Your task to perform on an android device: remove spam from my inbox in the gmail app Image 0: 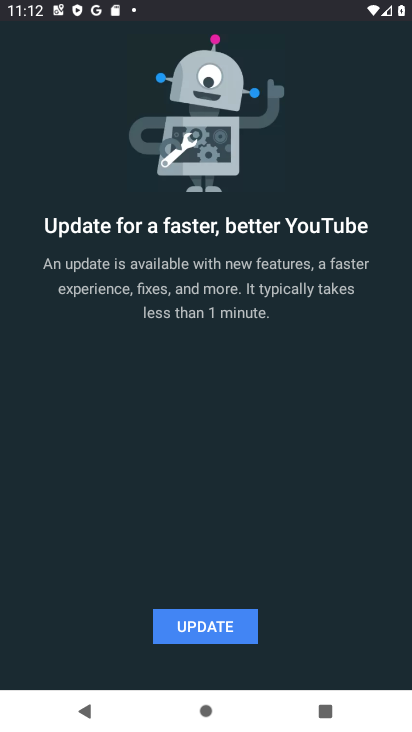
Step 0: press home button
Your task to perform on an android device: remove spam from my inbox in the gmail app Image 1: 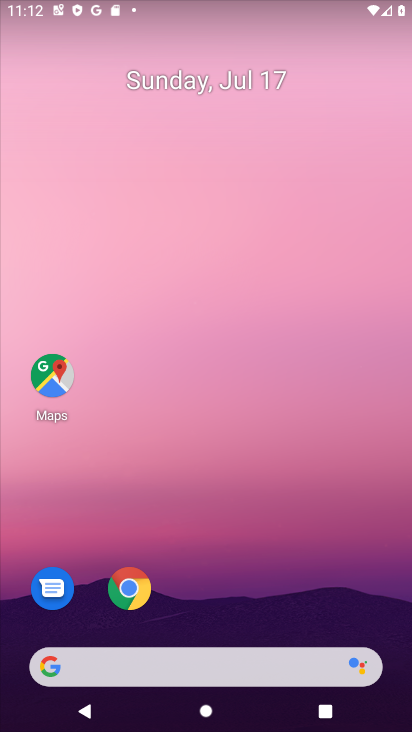
Step 1: drag from (231, 614) to (313, 67)
Your task to perform on an android device: remove spam from my inbox in the gmail app Image 2: 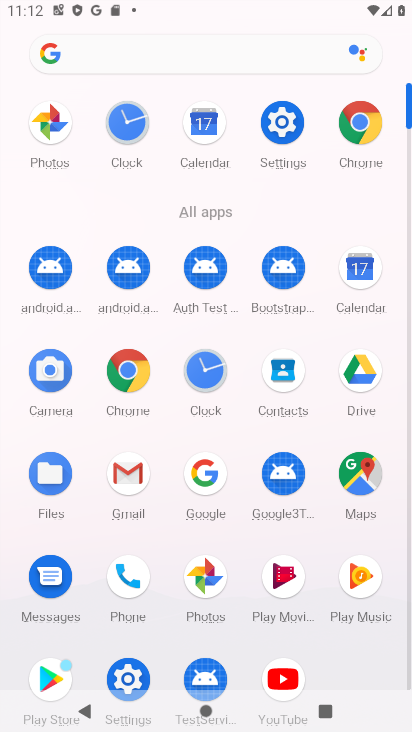
Step 2: click (129, 477)
Your task to perform on an android device: remove spam from my inbox in the gmail app Image 3: 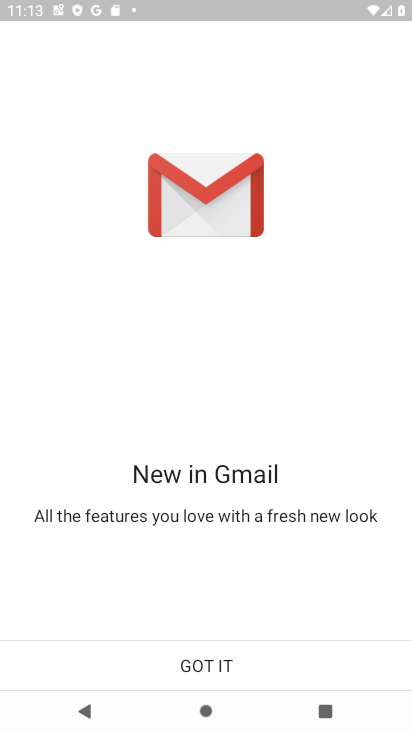
Step 3: click (211, 666)
Your task to perform on an android device: remove spam from my inbox in the gmail app Image 4: 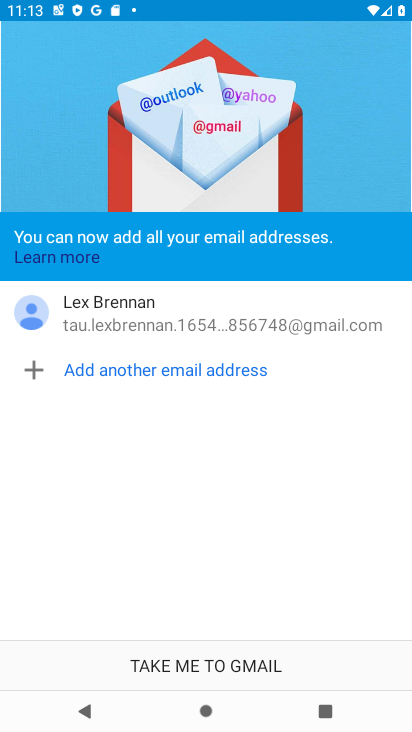
Step 4: click (211, 665)
Your task to perform on an android device: remove spam from my inbox in the gmail app Image 5: 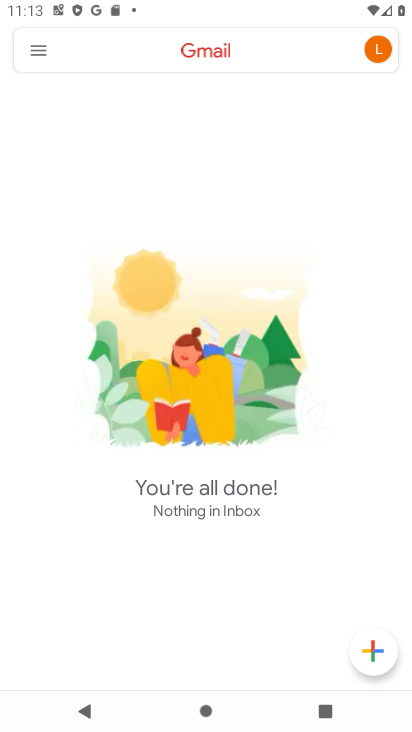
Step 5: click (35, 51)
Your task to perform on an android device: remove spam from my inbox in the gmail app Image 6: 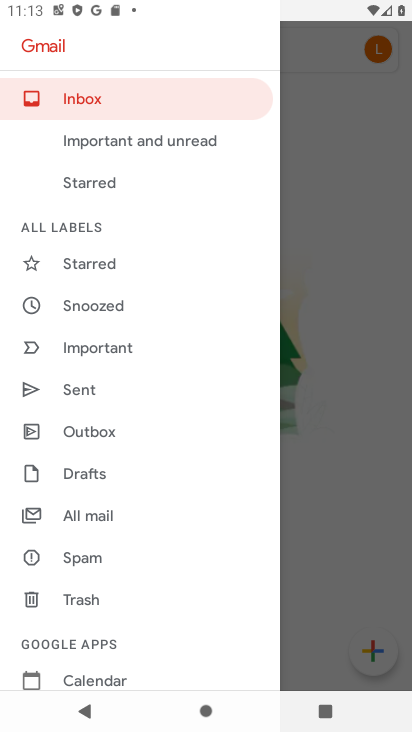
Step 6: click (99, 555)
Your task to perform on an android device: remove spam from my inbox in the gmail app Image 7: 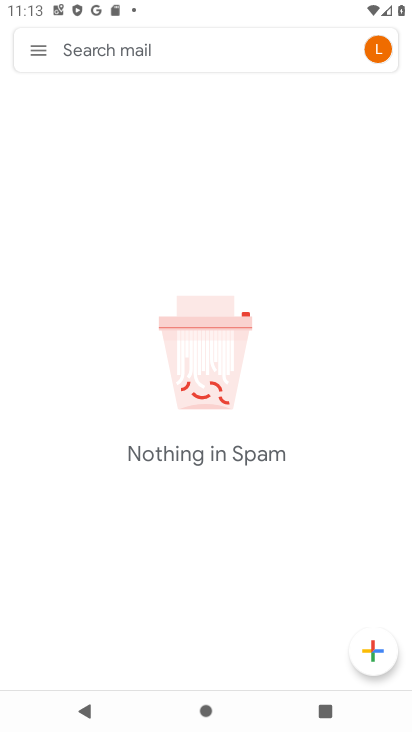
Step 7: task complete